Your task to perform on an android device: Add "logitech g pro" to the cart on bestbuy Image 0: 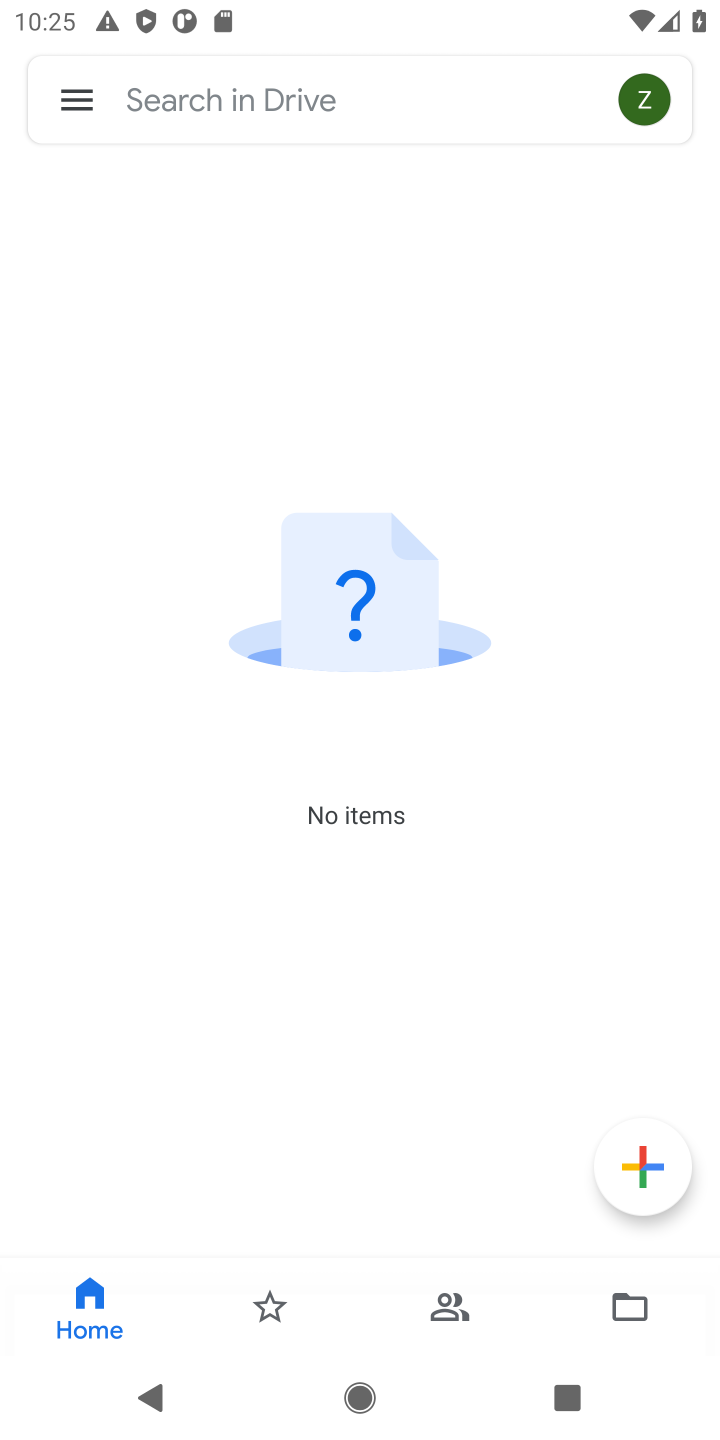
Step 0: press home button
Your task to perform on an android device: Add "logitech g pro" to the cart on bestbuy Image 1: 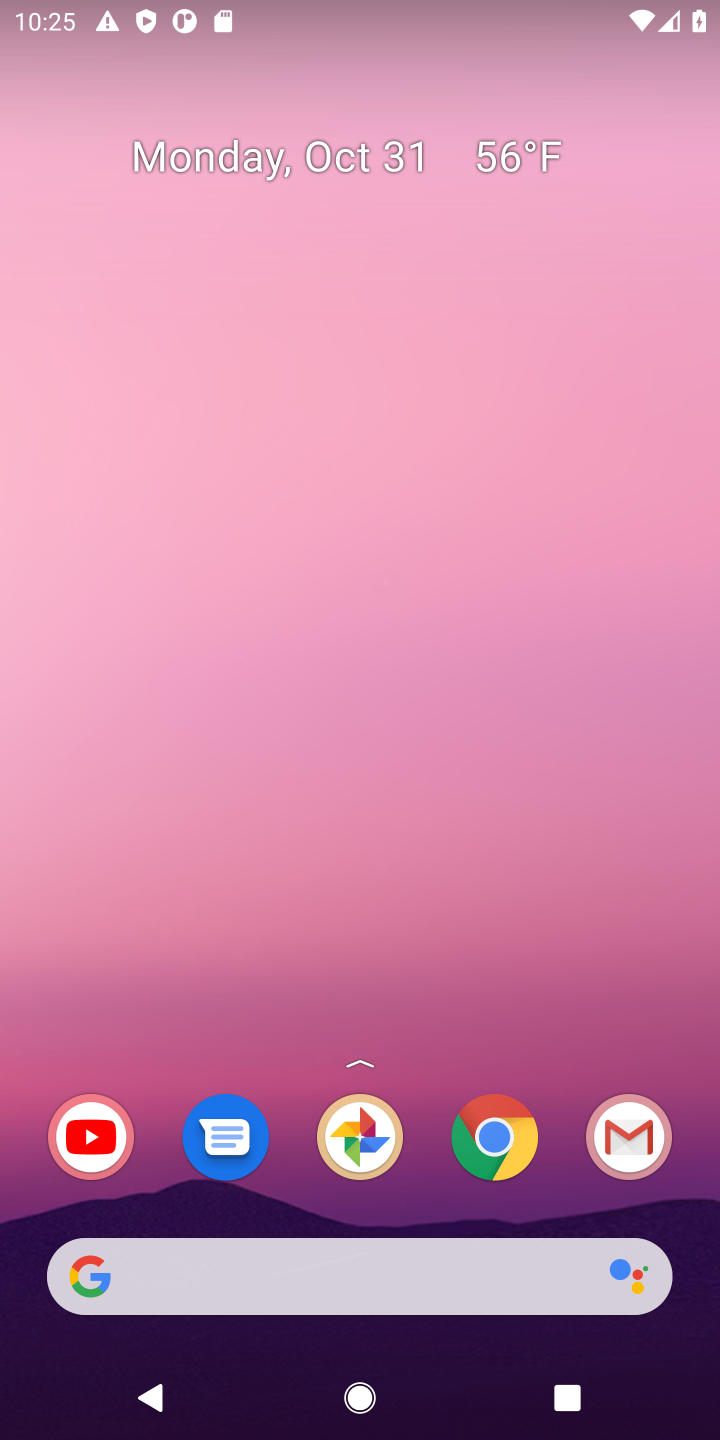
Step 1: click (498, 1137)
Your task to perform on an android device: Add "logitech g pro" to the cart on bestbuy Image 2: 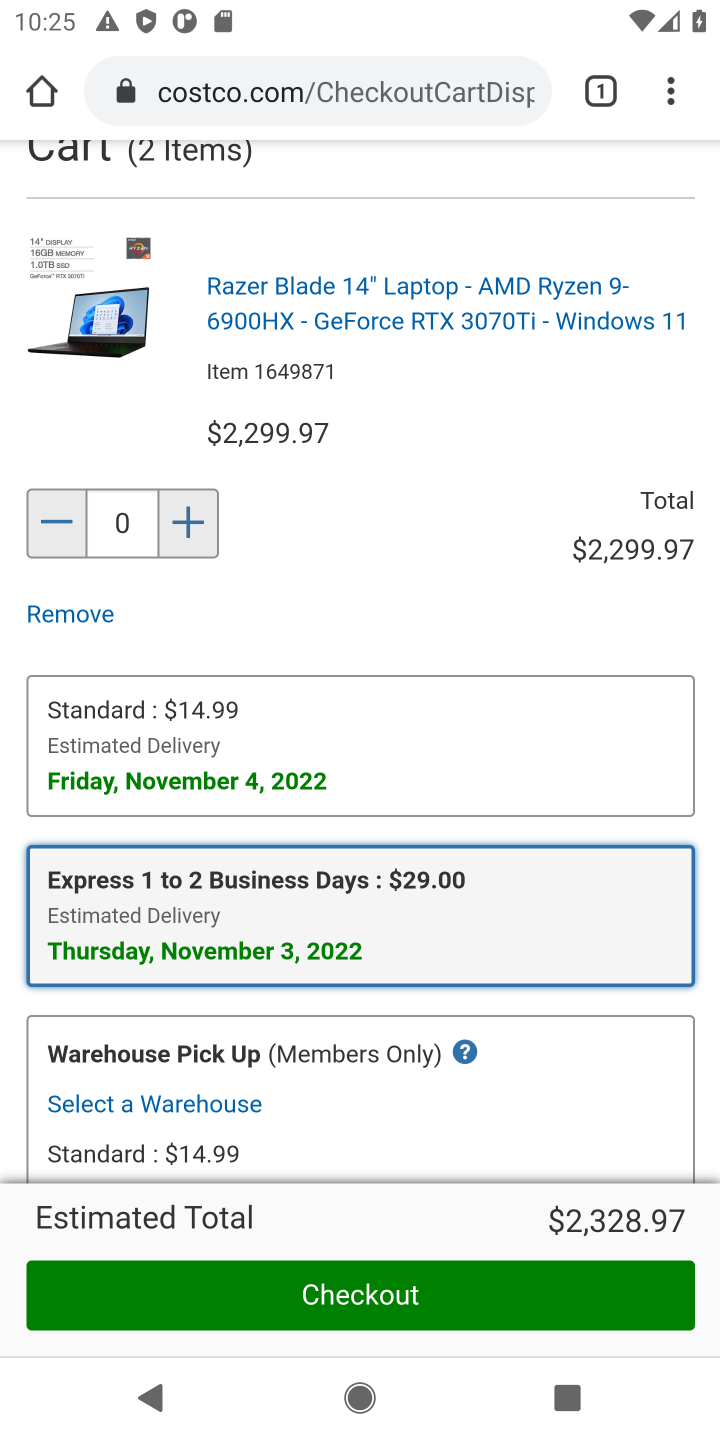
Step 2: click (403, 103)
Your task to perform on an android device: Add "logitech g pro" to the cart on bestbuy Image 3: 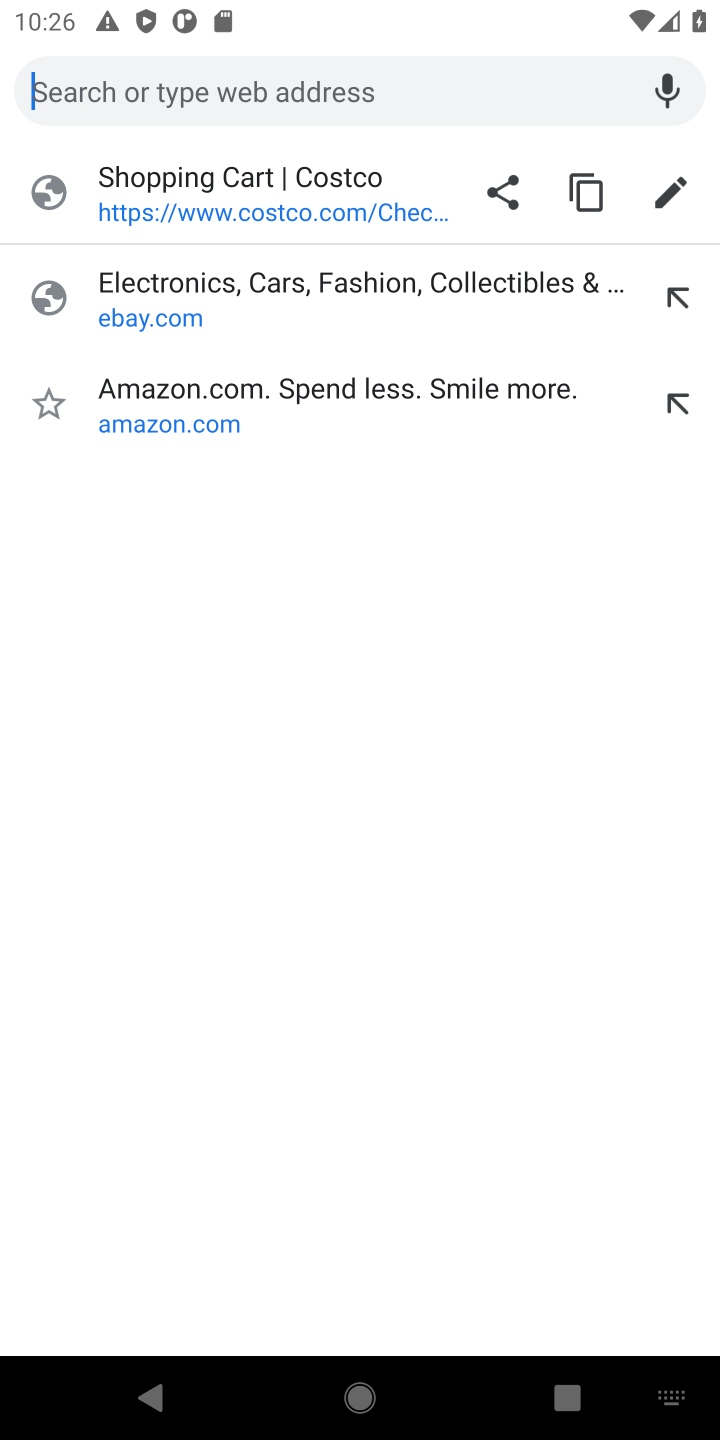
Step 3: type "bestbuy"
Your task to perform on an android device: Add "logitech g pro" to the cart on bestbuy Image 4: 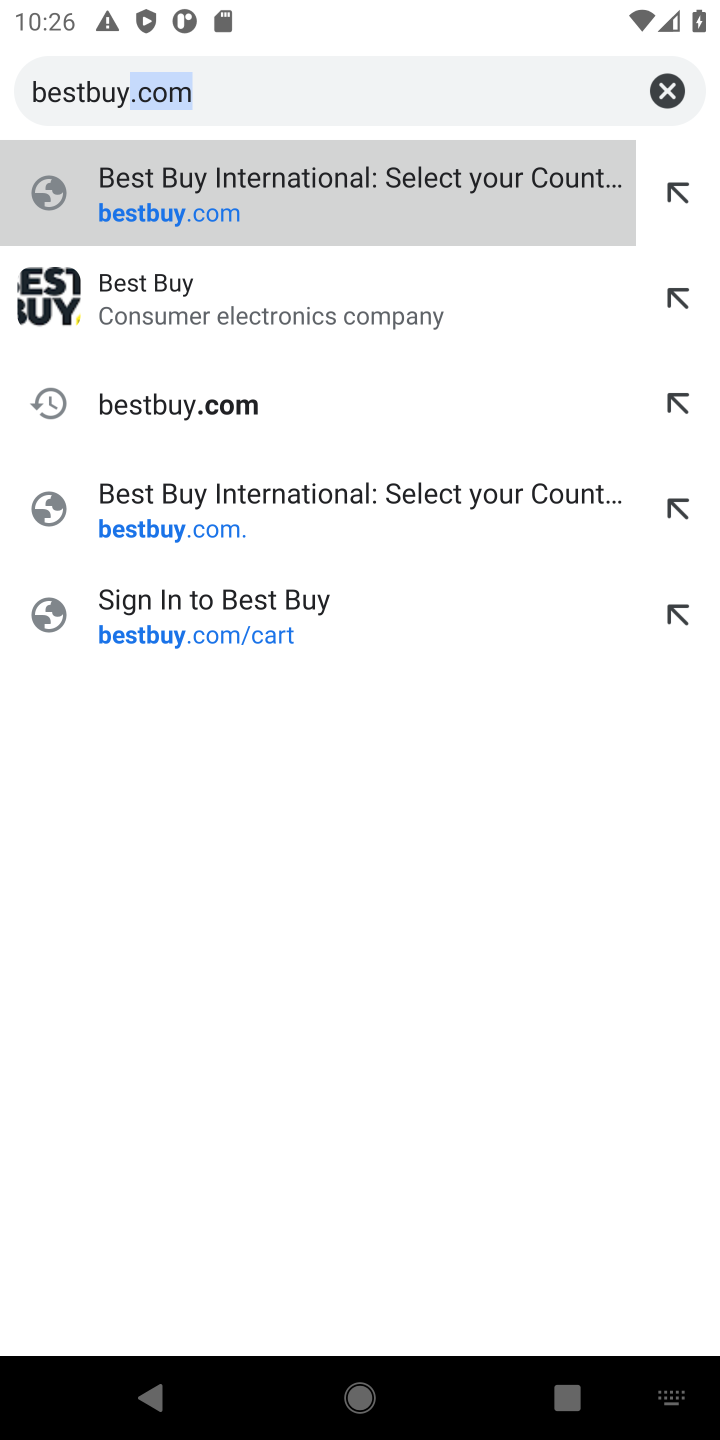
Step 4: click (171, 311)
Your task to perform on an android device: Add "logitech g pro" to the cart on bestbuy Image 5: 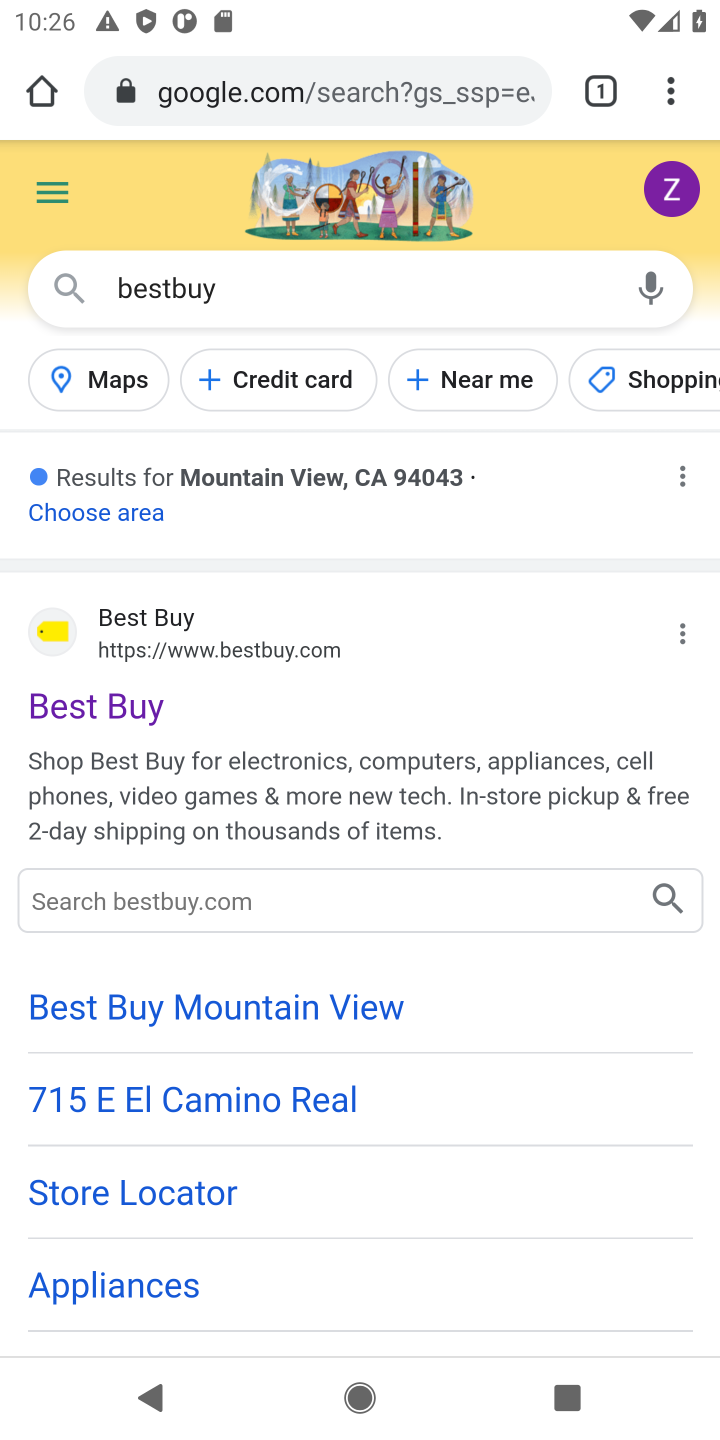
Step 5: click (138, 697)
Your task to perform on an android device: Add "logitech g pro" to the cart on bestbuy Image 6: 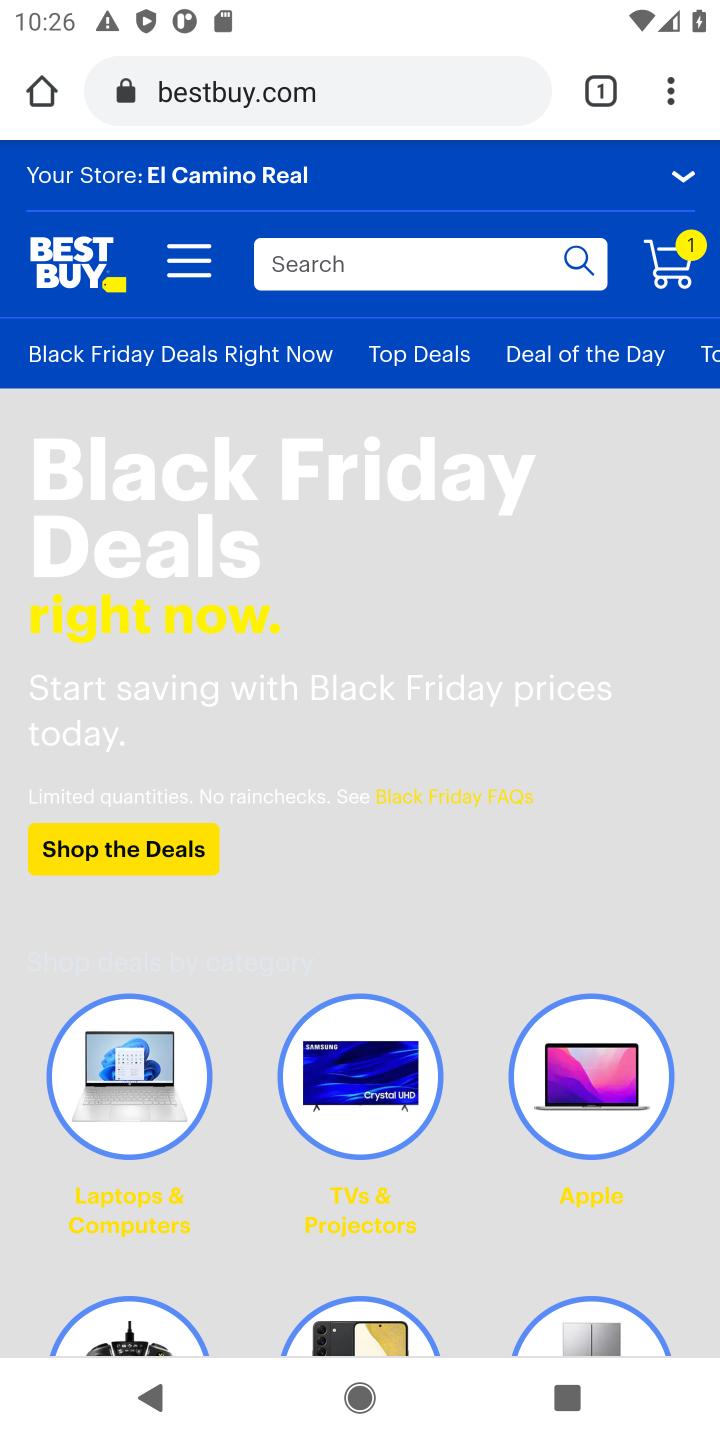
Step 6: click (492, 269)
Your task to perform on an android device: Add "logitech g pro" to the cart on bestbuy Image 7: 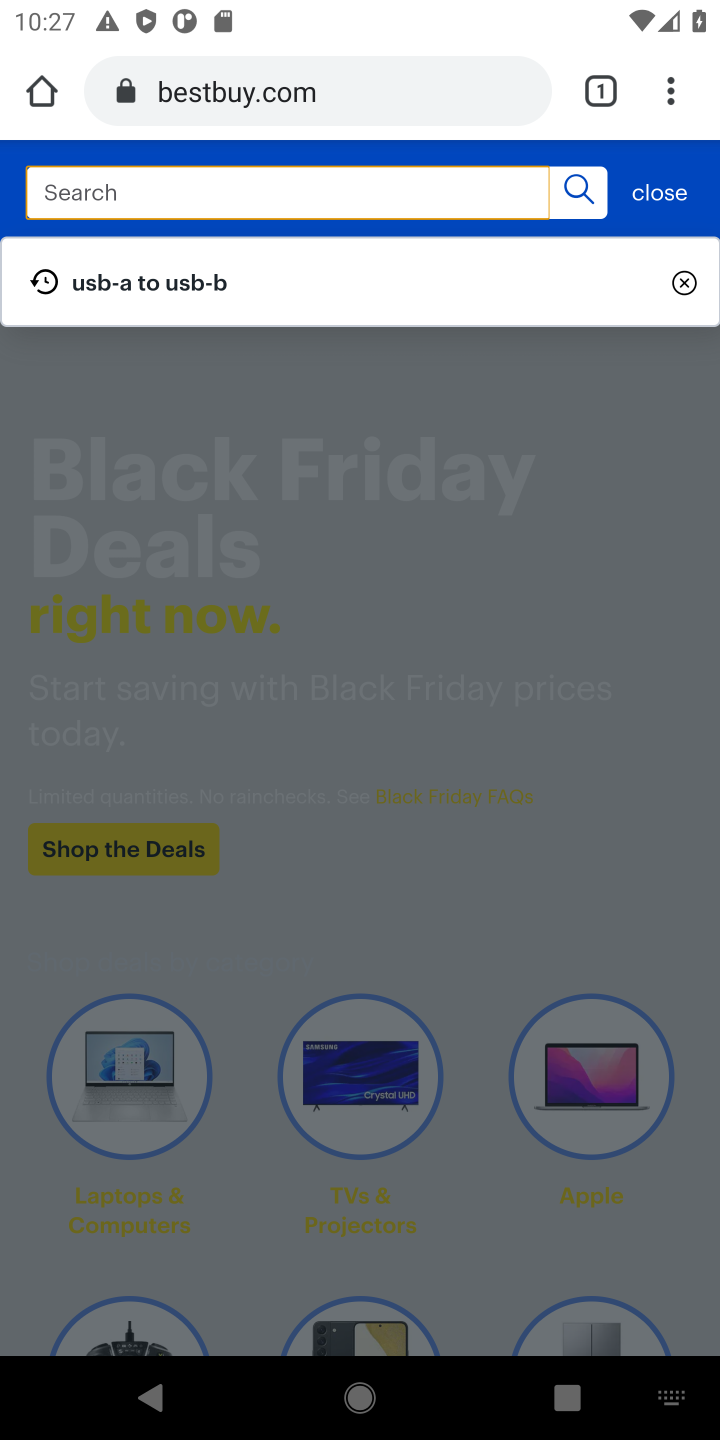
Step 7: type "logitech g pro"
Your task to perform on an android device: Add "logitech g pro" to the cart on bestbuy Image 8: 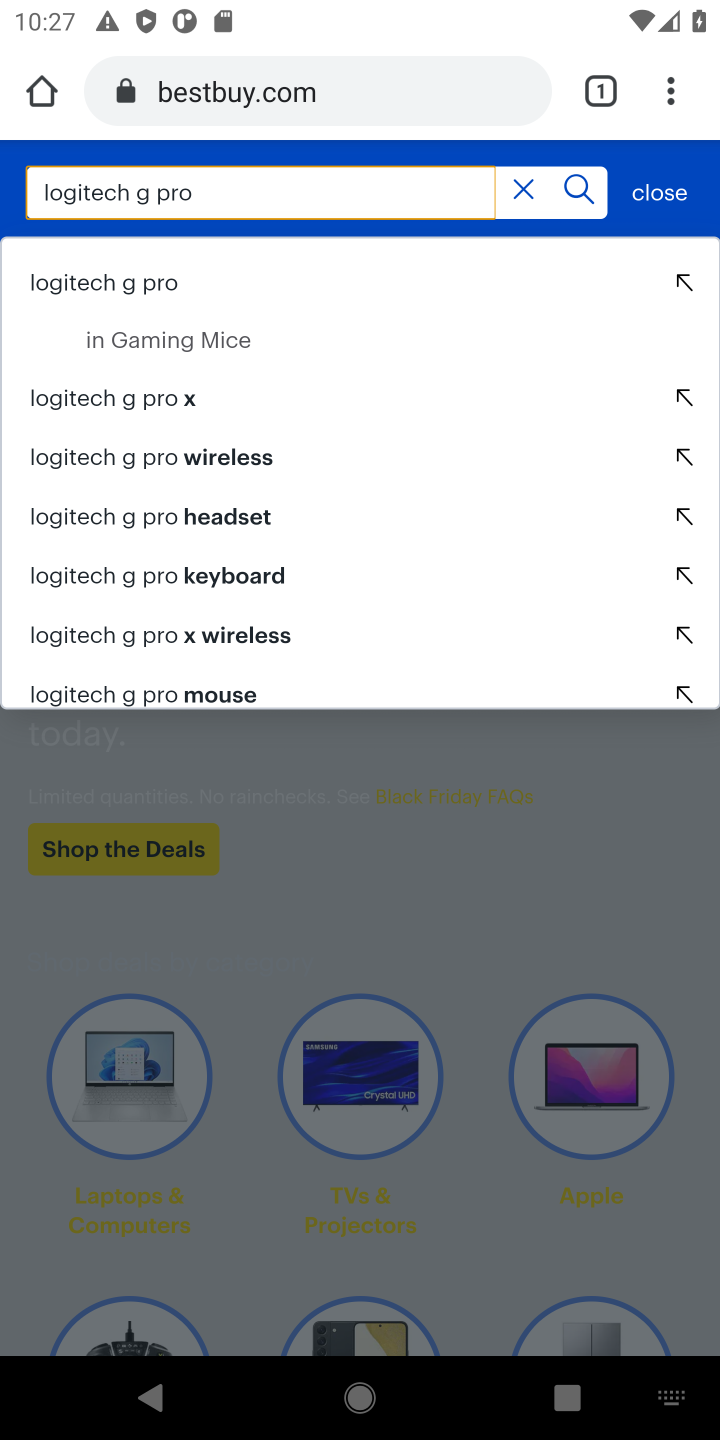
Step 8: click (155, 287)
Your task to perform on an android device: Add "logitech g pro" to the cart on bestbuy Image 9: 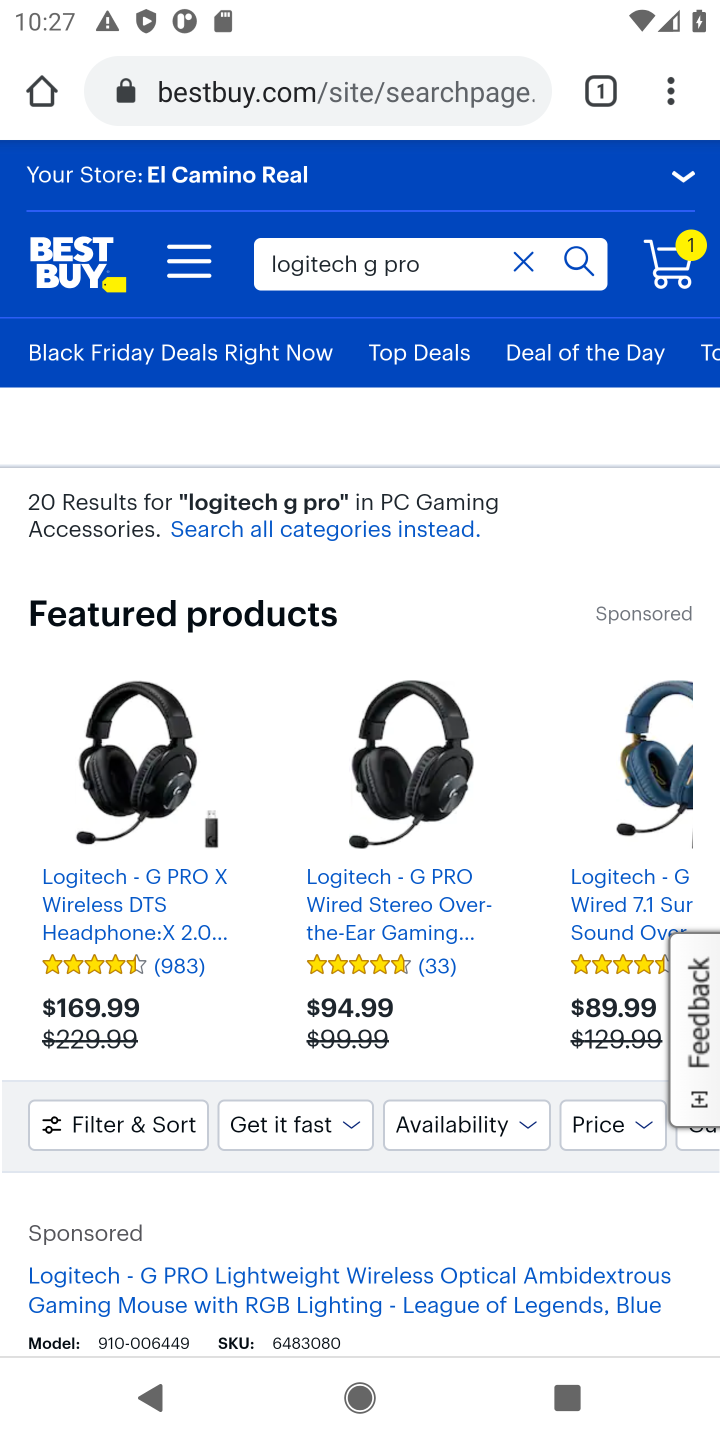
Step 9: click (100, 896)
Your task to perform on an android device: Add "logitech g pro" to the cart on bestbuy Image 10: 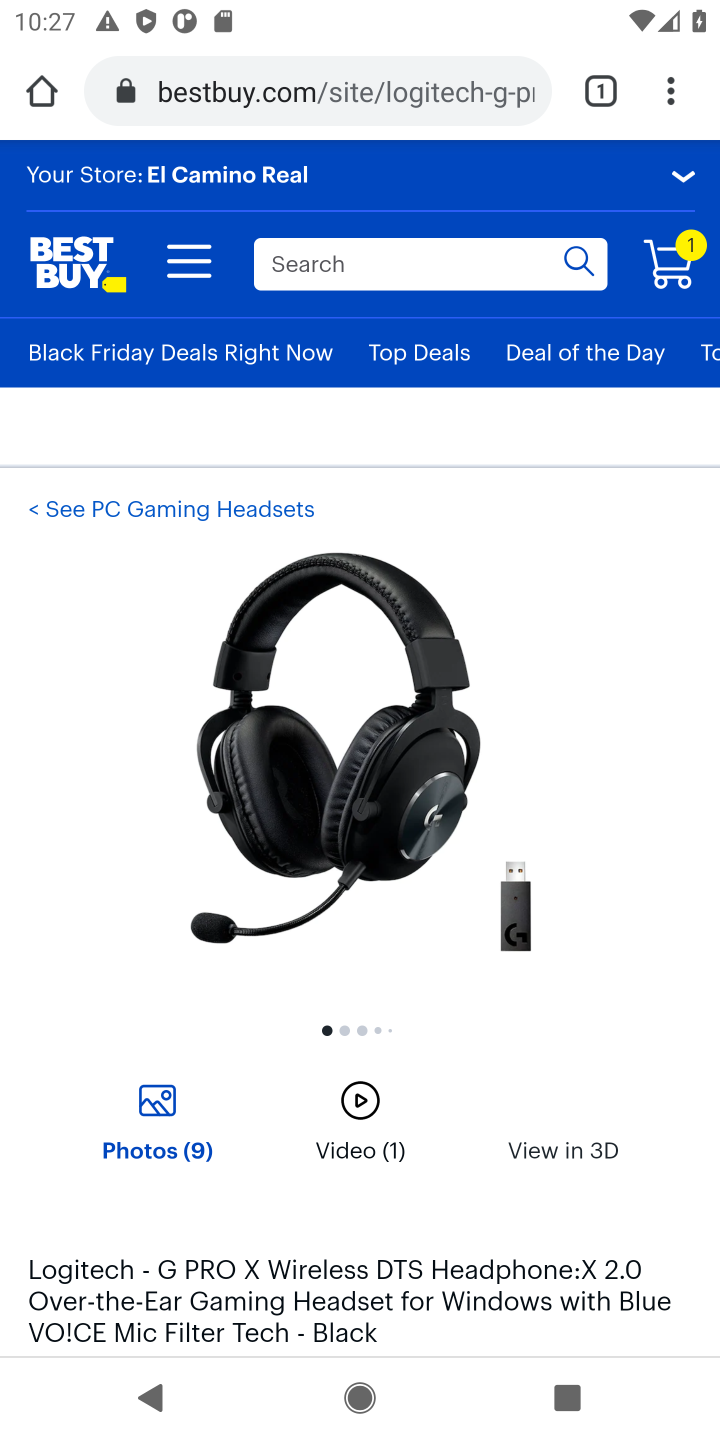
Step 10: drag from (442, 1176) to (472, 609)
Your task to perform on an android device: Add "logitech g pro" to the cart on bestbuy Image 11: 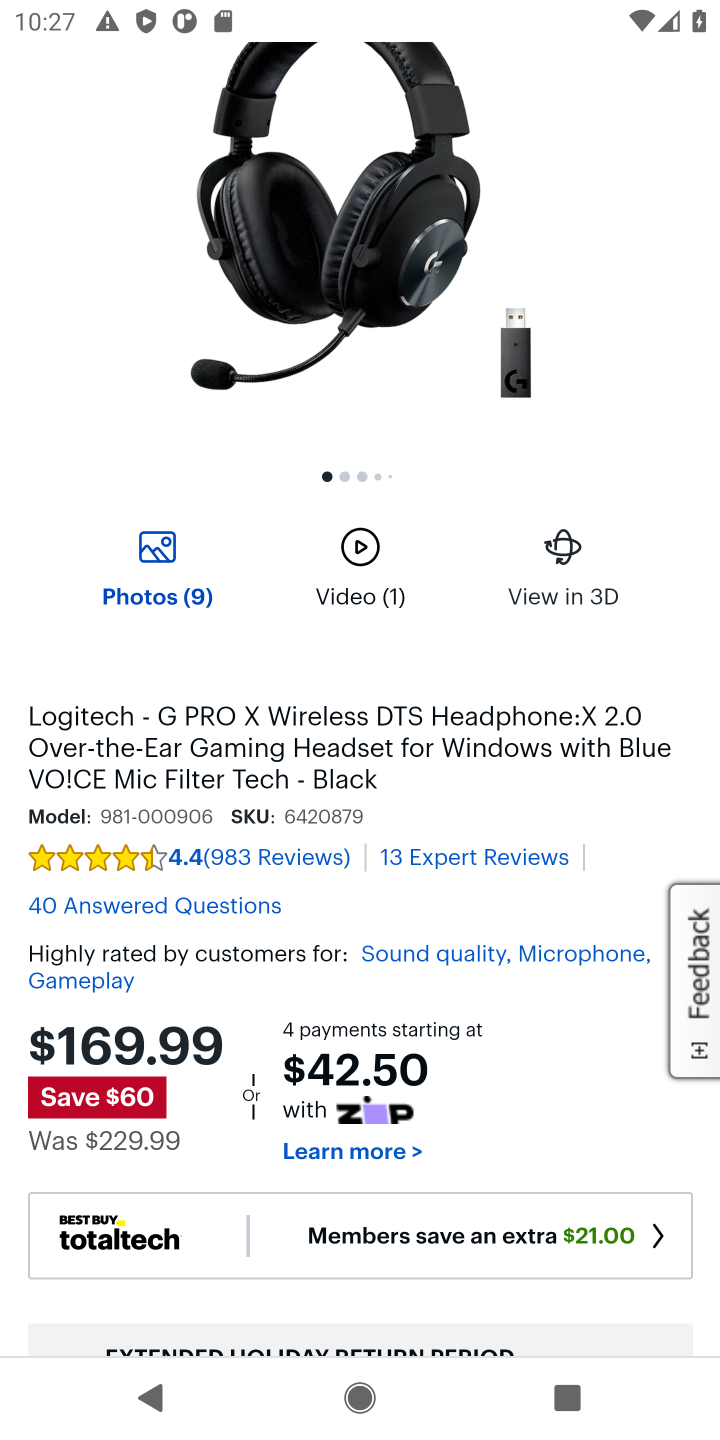
Step 11: drag from (546, 1076) to (551, 617)
Your task to perform on an android device: Add "logitech g pro" to the cart on bestbuy Image 12: 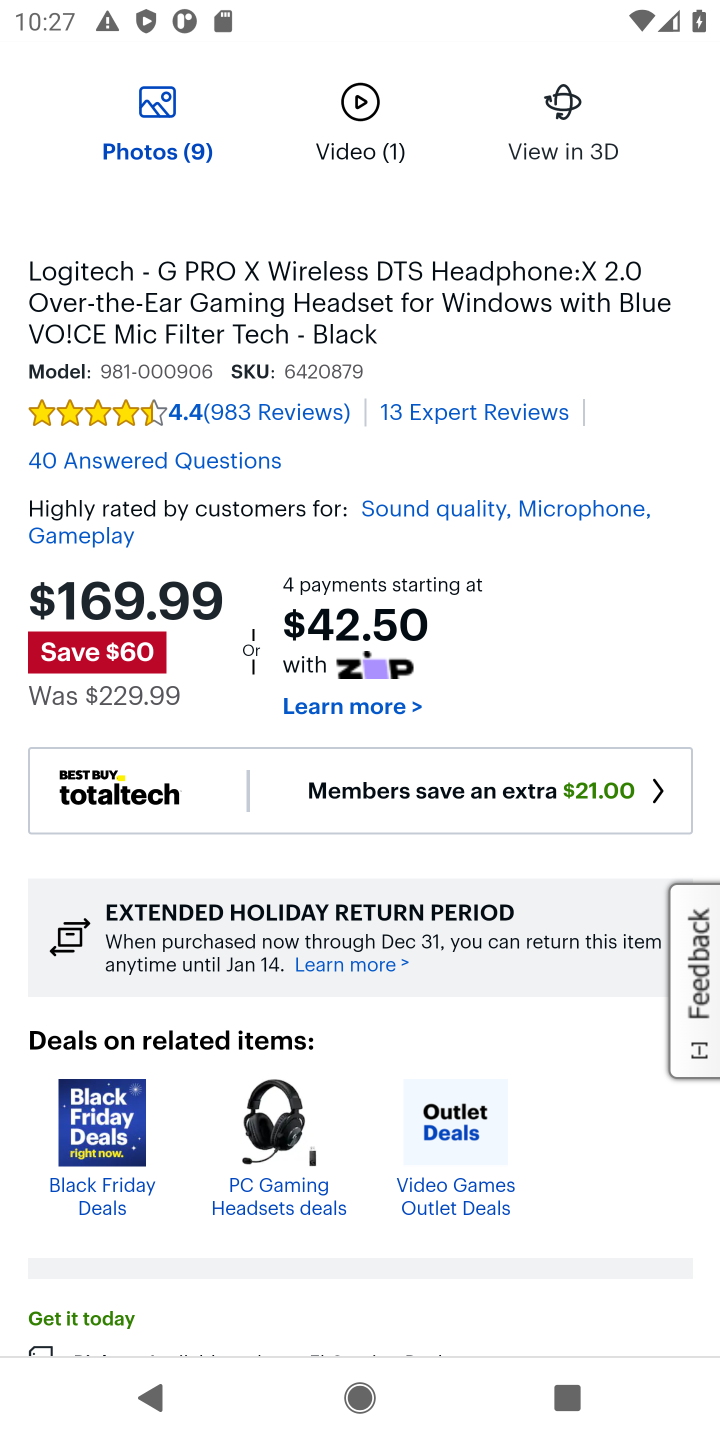
Step 12: drag from (562, 1175) to (534, 623)
Your task to perform on an android device: Add "logitech g pro" to the cart on bestbuy Image 13: 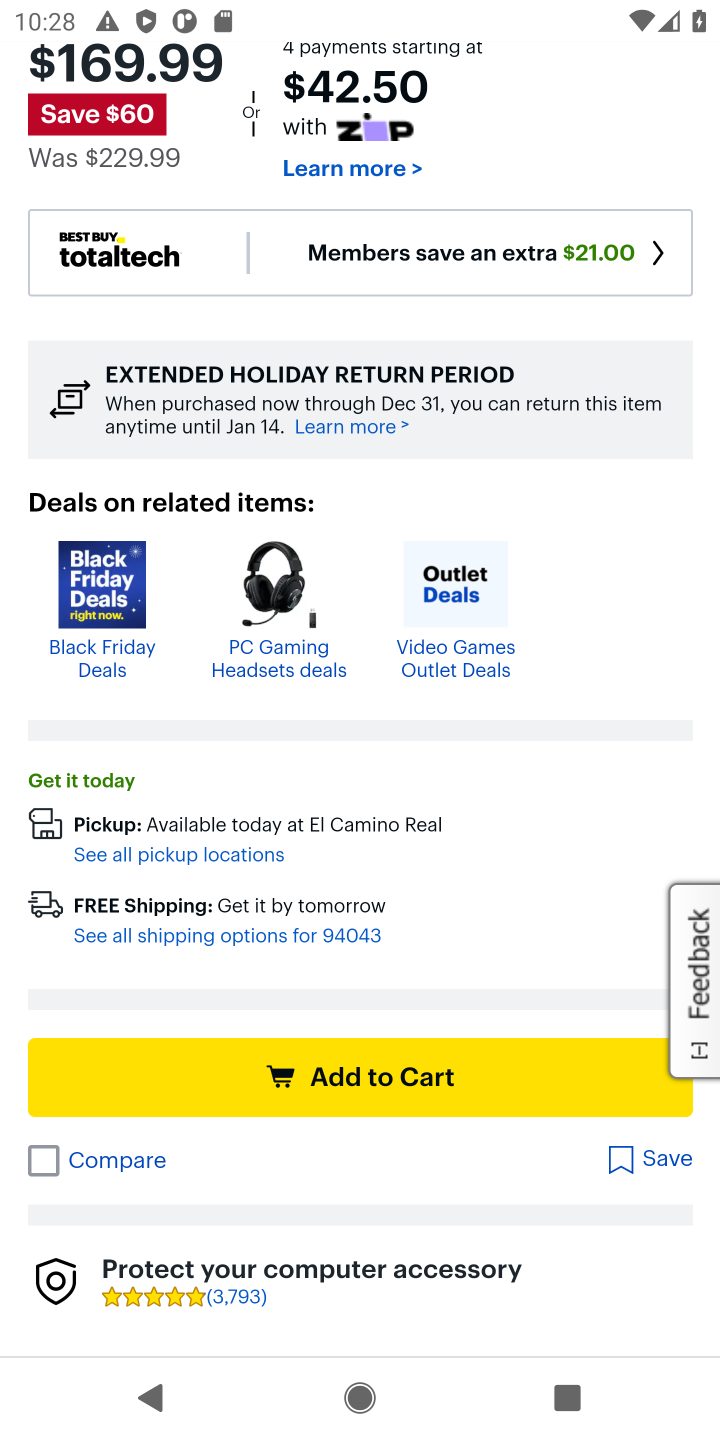
Step 13: click (339, 1071)
Your task to perform on an android device: Add "logitech g pro" to the cart on bestbuy Image 14: 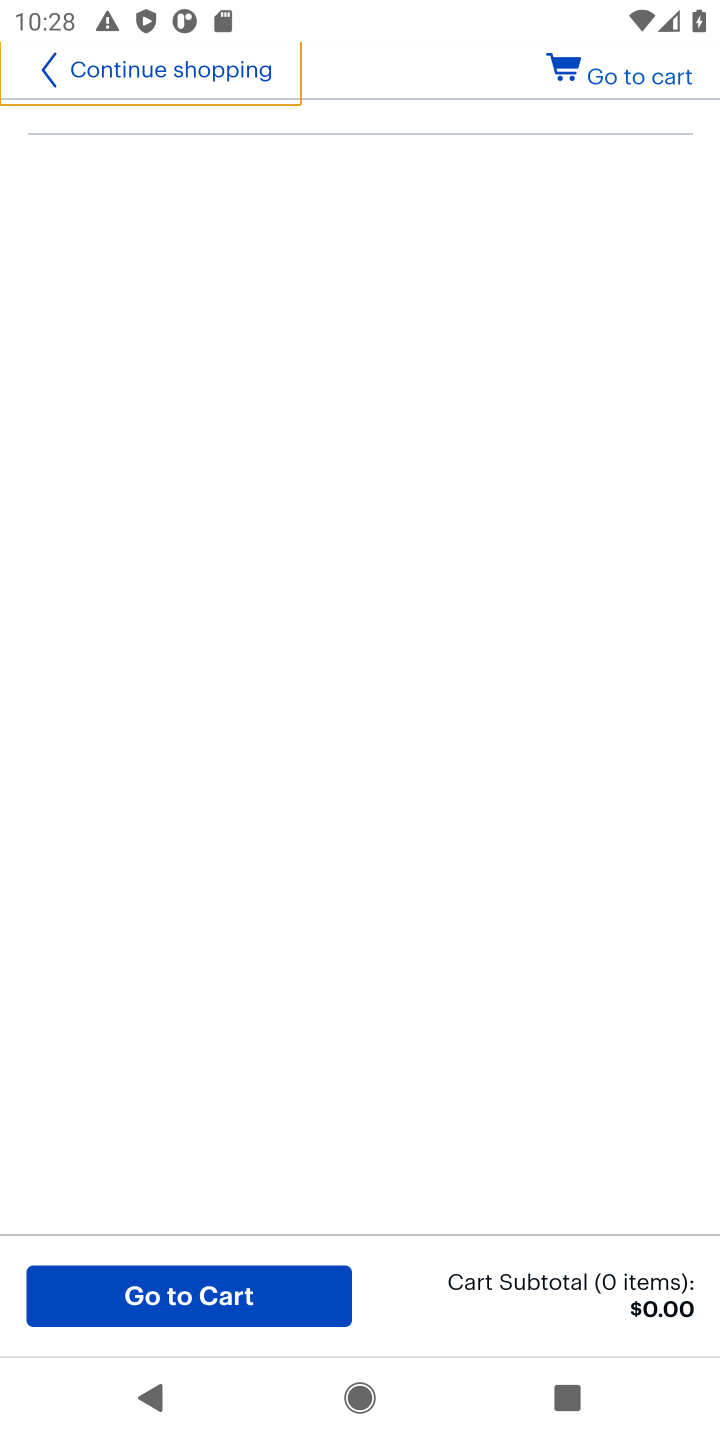
Step 14: click (683, 76)
Your task to perform on an android device: Add "logitech g pro" to the cart on bestbuy Image 15: 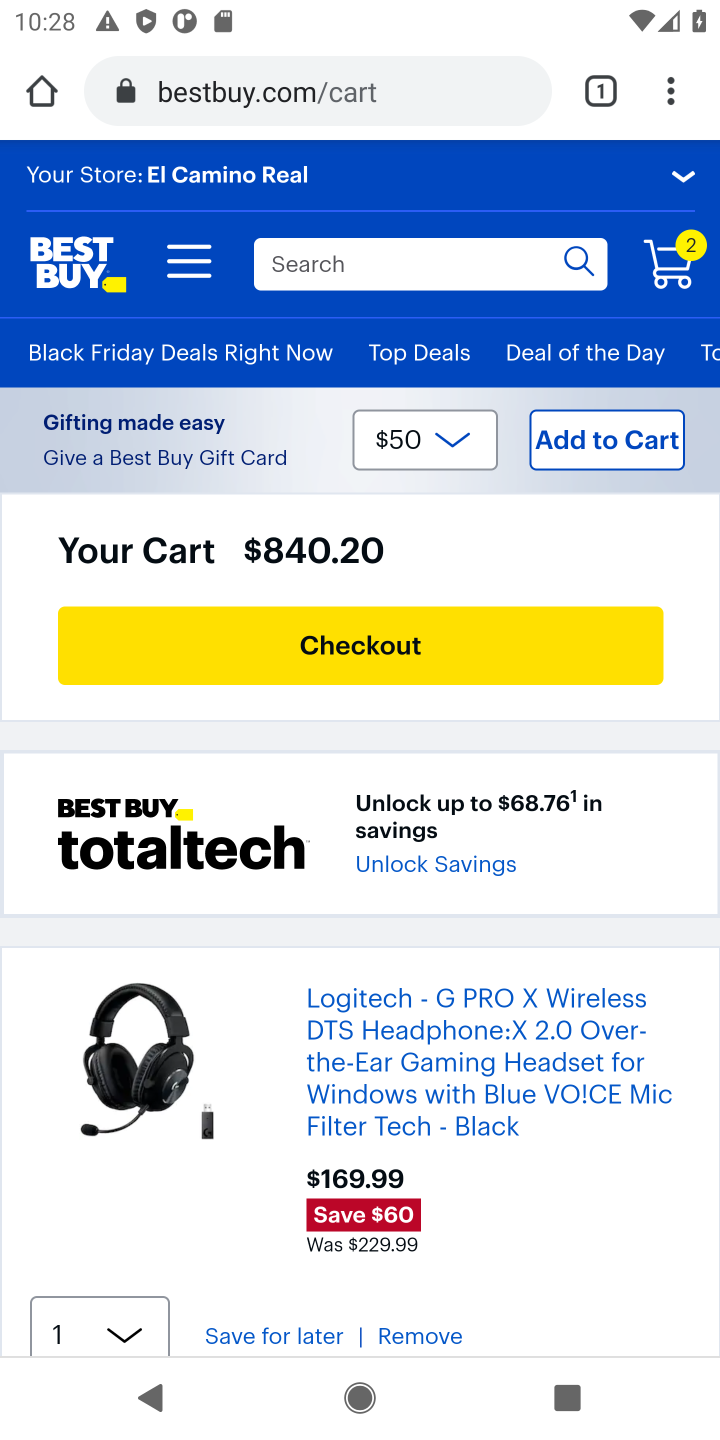
Step 15: task complete